Your task to perform on an android device: Search for Italian restaurants on Maps Image 0: 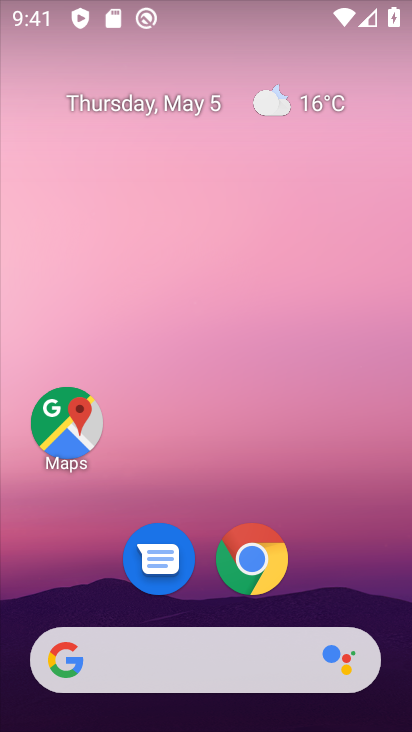
Step 0: click (85, 415)
Your task to perform on an android device: Search for Italian restaurants on Maps Image 1: 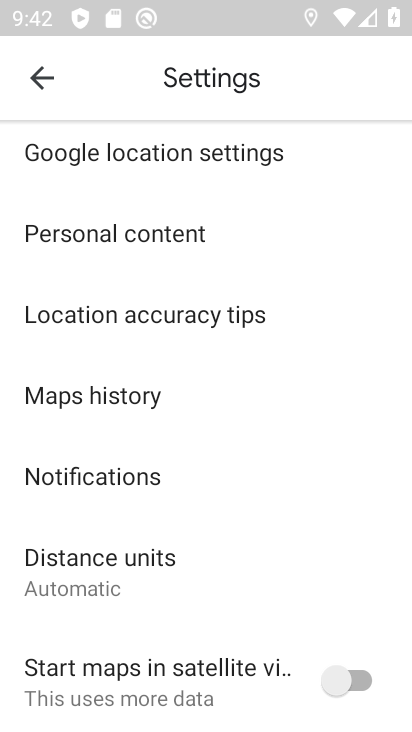
Step 1: click (31, 89)
Your task to perform on an android device: Search for Italian restaurants on Maps Image 2: 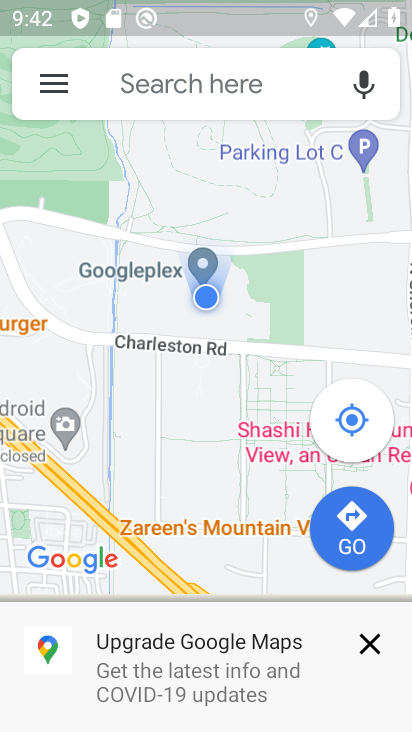
Step 2: click (170, 91)
Your task to perform on an android device: Search for Italian restaurants on Maps Image 3: 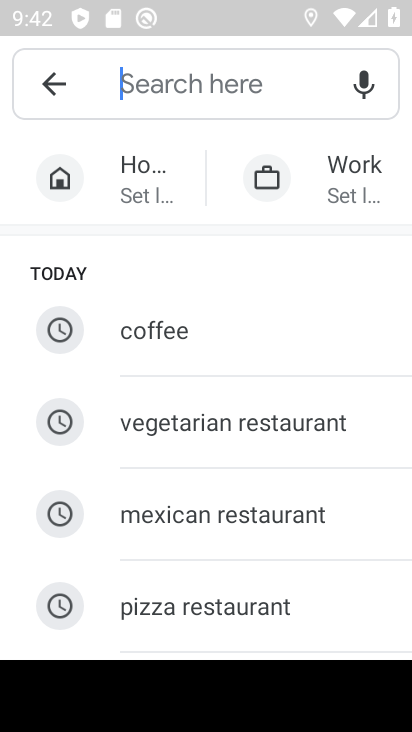
Step 3: type "italian restaurants"
Your task to perform on an android device: Search for Italian restaurants on Maps Image 4: 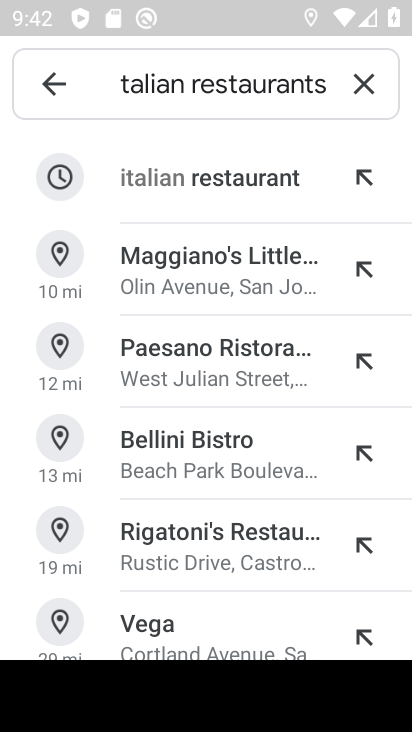
Step 4: click (224, 174)
Your task to perform on an android device: Search for Italian restaurants on Maps Image 5: 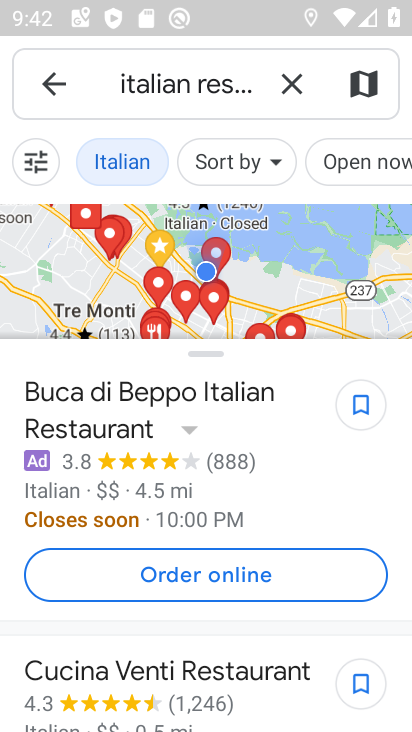
Step 5: task complete